Your task to perform on an android device: set default search engine in the chrome app Image 0: 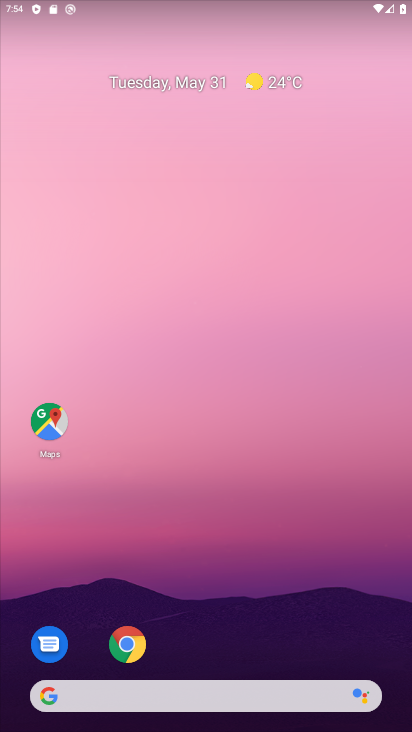
Step 0: click (125, 650)
Your task to perform on an android device: set default search engine in the chrome app Image 1: 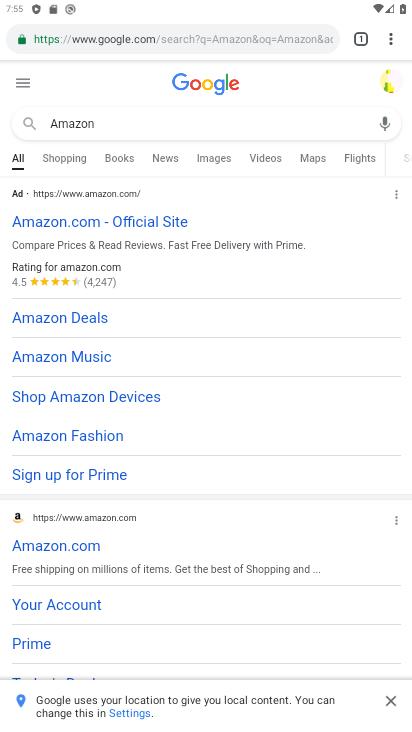
Step 1: click (390, 36)
Your task to perform on an android device: set default search engine in the chrome app Image 2: 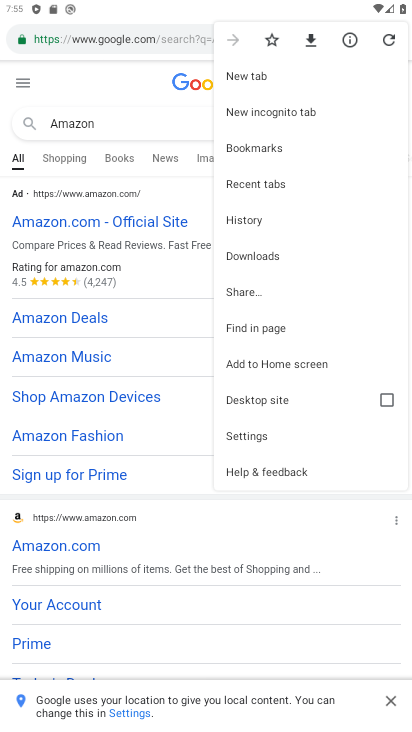
Step 2: click (232, 443)
Your task to perform on an android device: set default search engine in the chrome app Image 3: 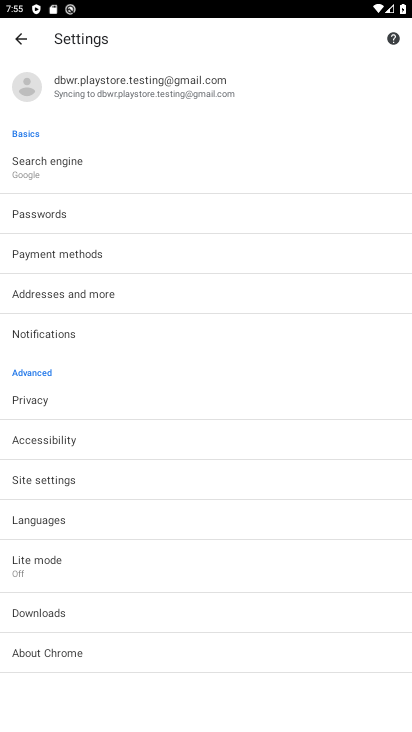
Step 3: click (98, 178)
Your task to perform on an android device: set default search engine in the chrome app Image 4: 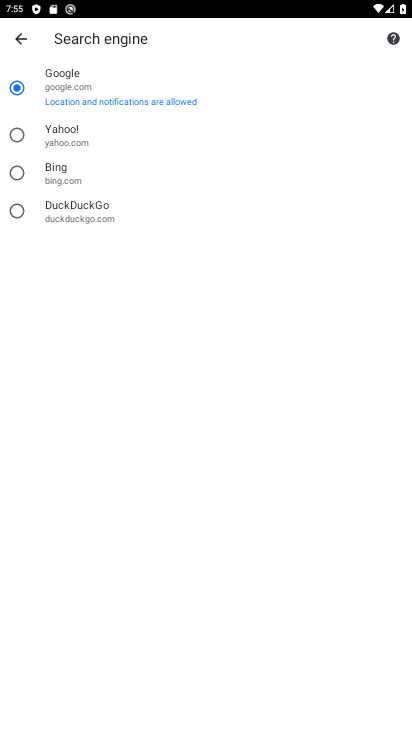
Step 4: task complete